Your task to perform on an android device: change the clock display to show seconds Image 0: 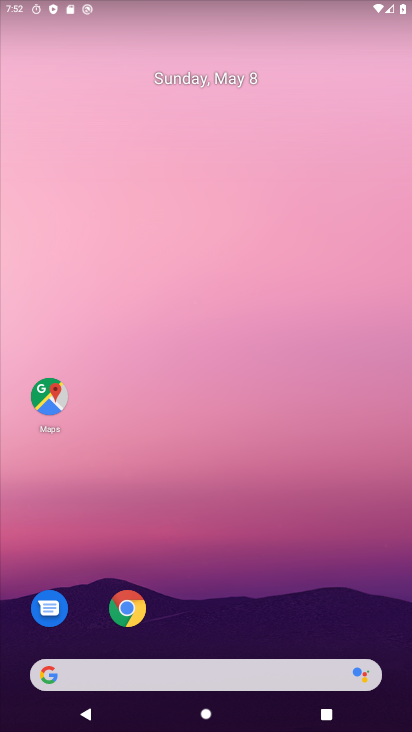
Step 0: drag from (288, 608) to (310, 168)
Your task to perform on an android device: change the clock display to show seconds Image 1: 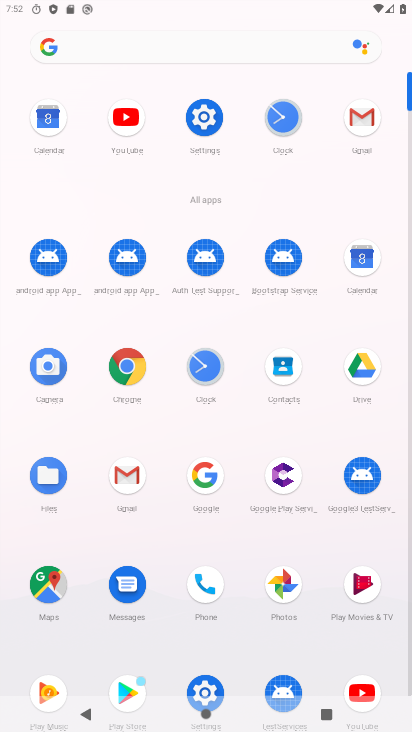
Step 1: click (190, 376)
Your task to perform on an android device: change the clock display to show seconds Image 2: 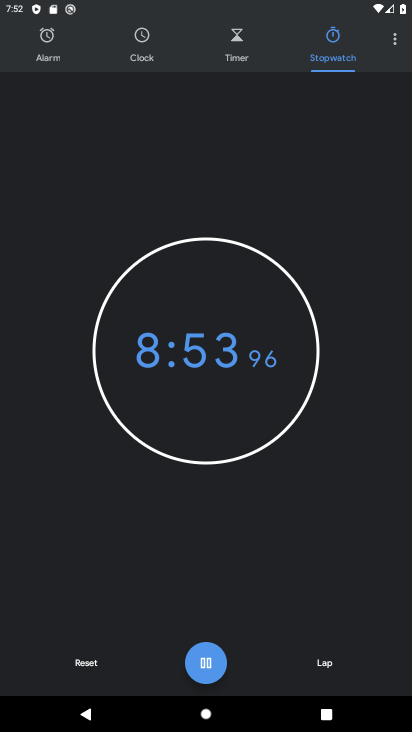
Step 2: click (395, 44)
Your task to perform on an android device: change the clock display to show seconds Image 3: 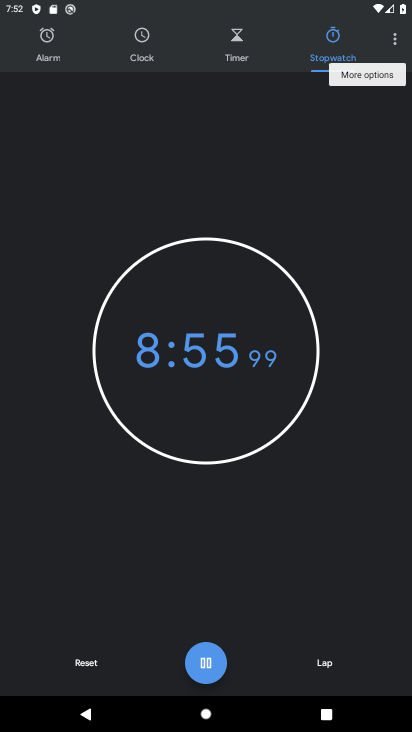
Step 3: click (396, 50)
Your task to perform on an android device: change the clock display to show seconds Image 4: 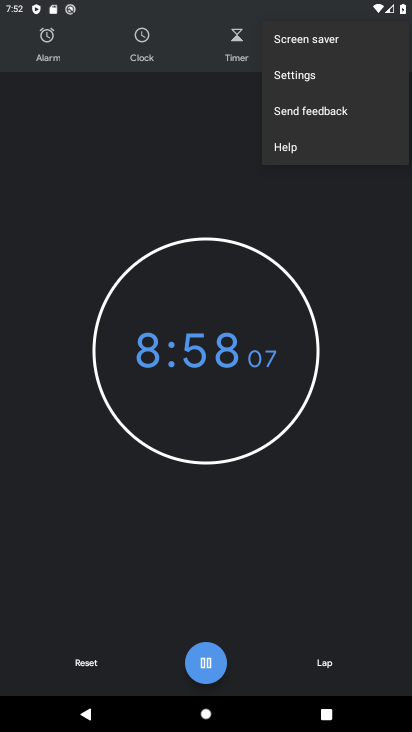
Step 4: click (348, 84)
Your task to perform on an android device: change the clock display to show seconds Image 5: 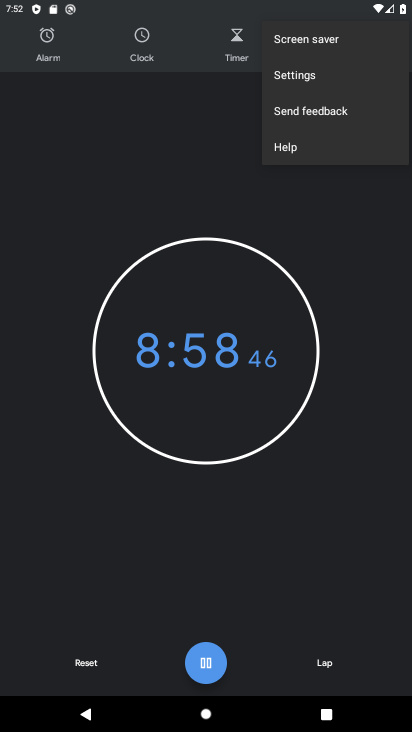
Step 5: click (348, 84)
Your task to perform on an android device: change the clock display to show seconds Image 6: 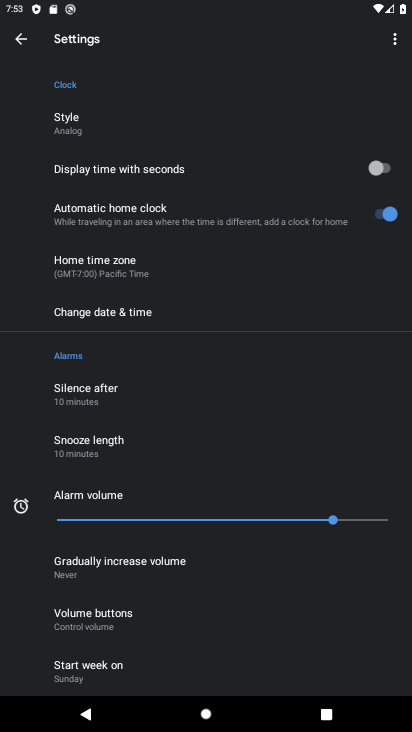
Step 6: click (385, 170)
Your task to perform on an android device: change the clock display to show seconds Image 7: 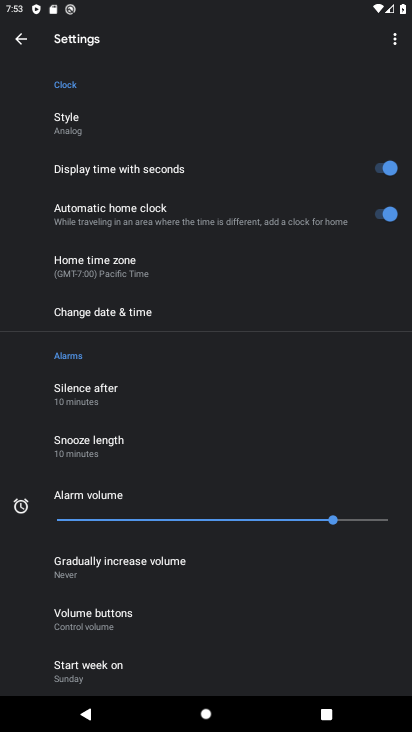
Step 7: task complete